Your task to perform on an android device: Open settings Image 0: 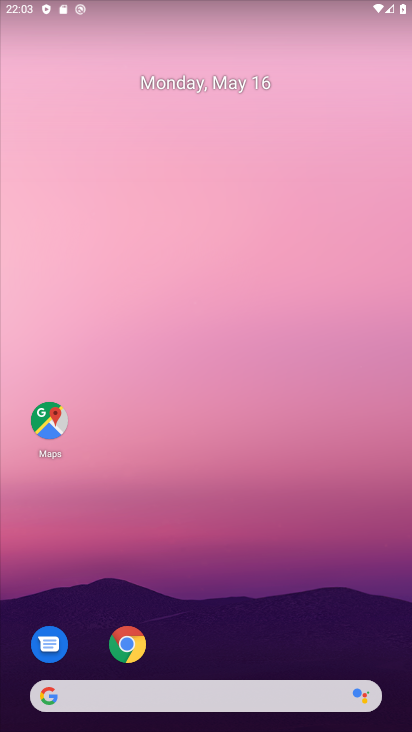
Step 0: drag from (21, 591) to (232, 80)
Your task to perform on an android device: Open settings Image 1: 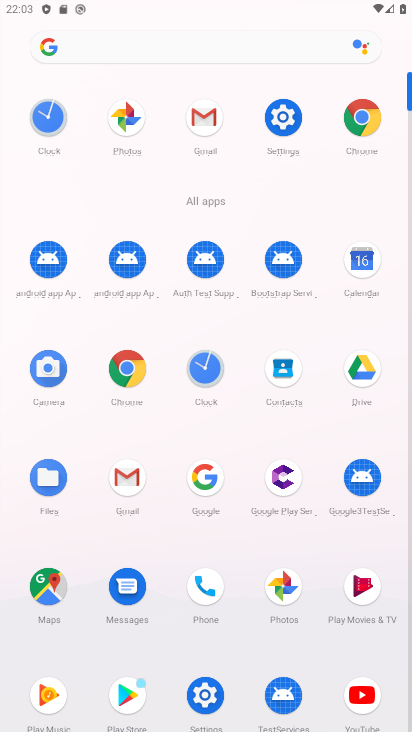
Step 1: click (272, 115)
Your task to perform on an android device: Open settings Image 2: 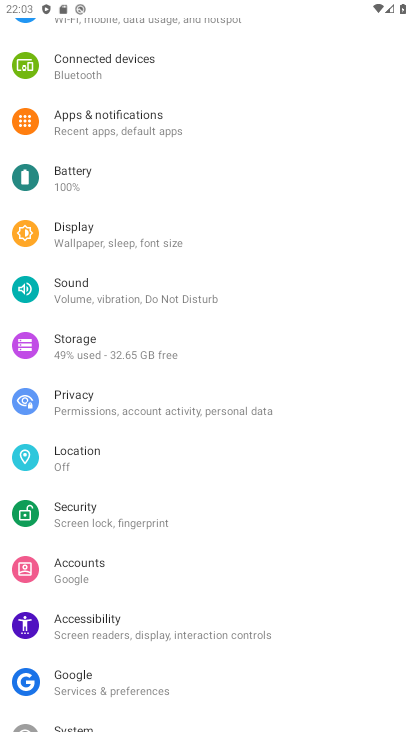
Step 2: task complete